Your task to perform on an android device: turn off sleep mode Image 0: 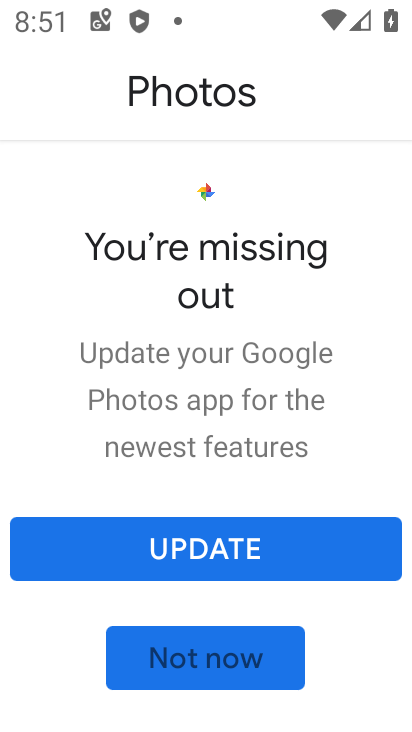
Step 0: press home button
Your task to perform on an android device: turn off sleep mode Image 1: 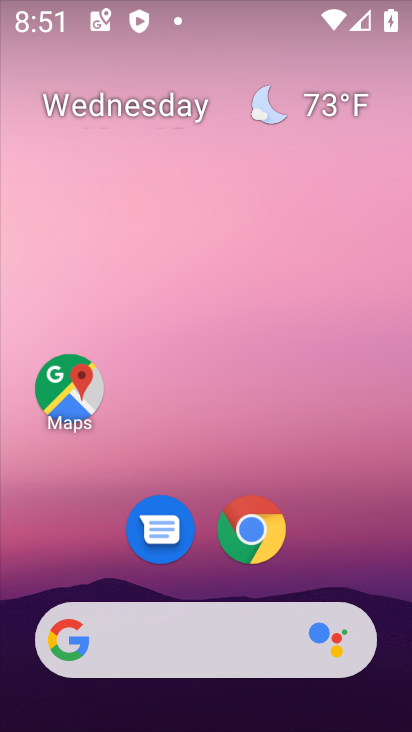
Step 1: drag from (379, 560) to (376, 274)
Your task to perform on an android device: turn off sleep mode Image 2: 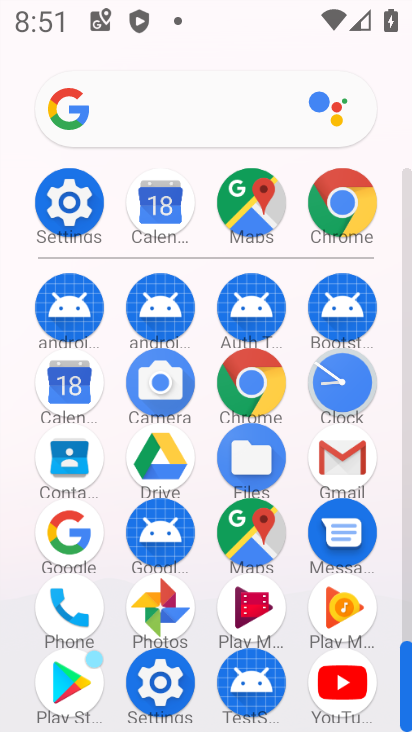
Step 2: click (92, 190)
Your task to perform on an android device: turn off sleep mode Image 3: 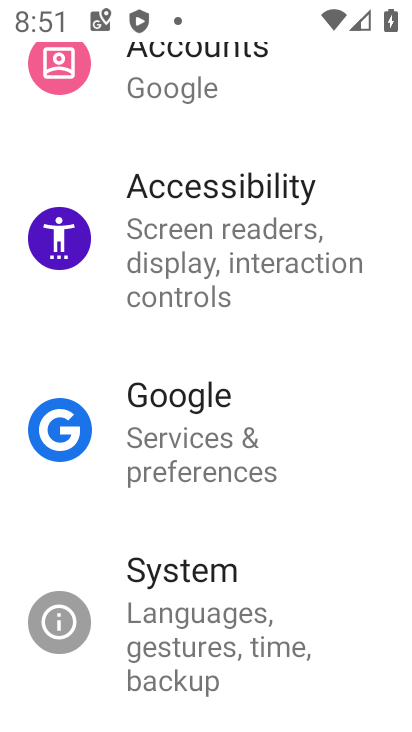
Step 3: drag from (382, 322) to (350, 480)
Your task to perform on an android device: turn off sleep mode Image 4: 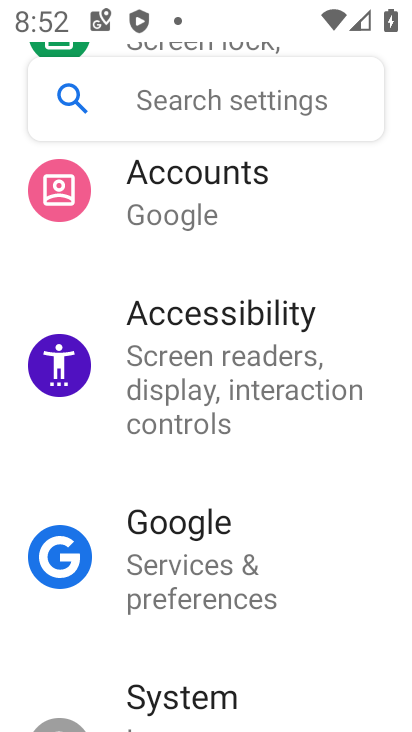
Step 4: drag from (359, 262) to (339, 444)
Your task to perform on an android device: turn off sleep mode Image 5: 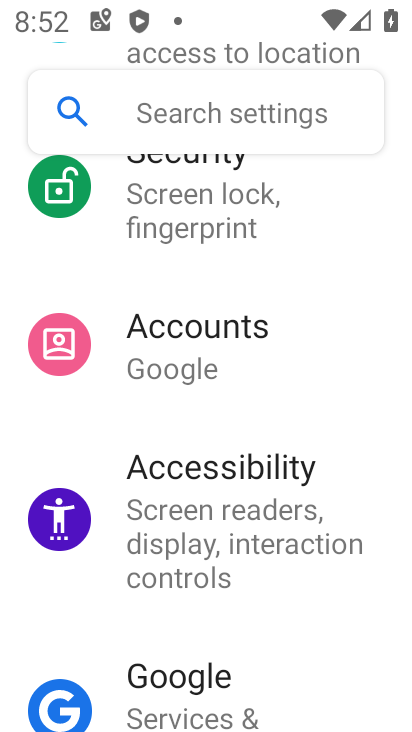
Step 5: drag from (350, 255) to (326, 443)
Your task to perform on an android device: turn off sleep mode Image 6: 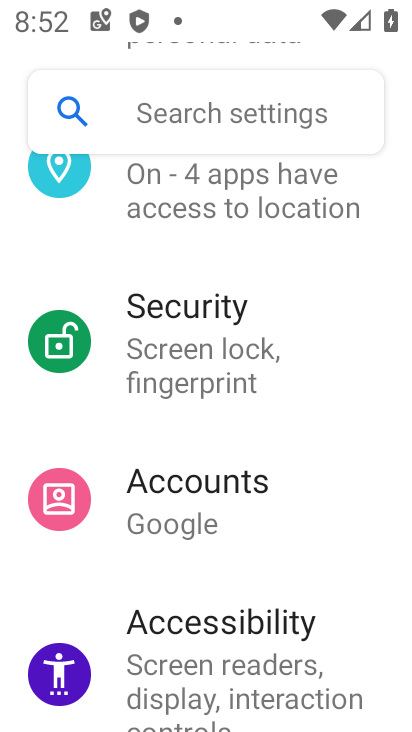
Step 6: drag from (342, 312) to (329, 456)
Your task to perform on an android device: turn off sleep mode Image 7: 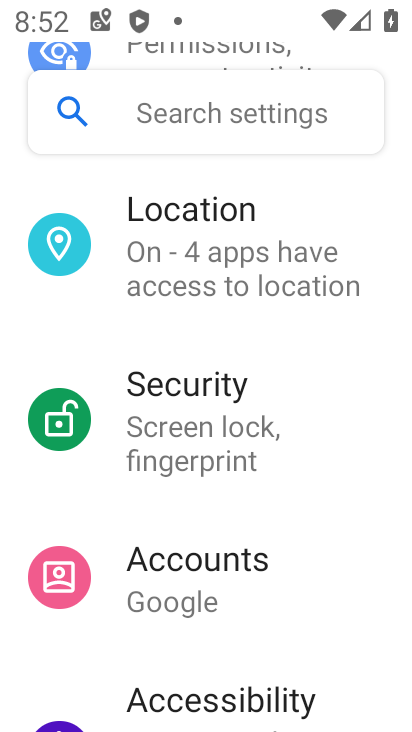
Step 7: drag from (369, 329) to (372, 505)
Your task to perform on an android device: turn off sleep mode Image 8: 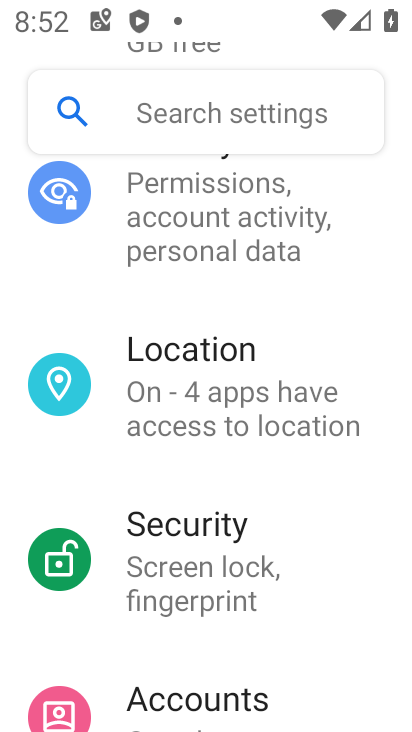
Step 8: drag from (345, 292) to (347, 476)
Your task to perform on an android device: turn off sleep mode Image 9: 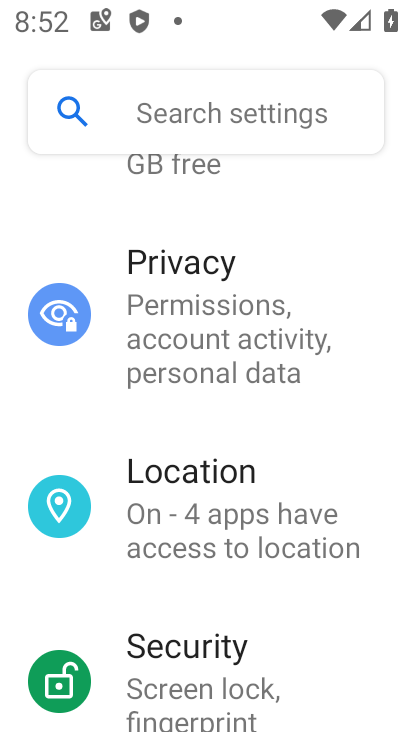
Step 9: drag from (347, 274) to (342, 417)
Your task to perform on an android device: turn off sleep mode Image 10: 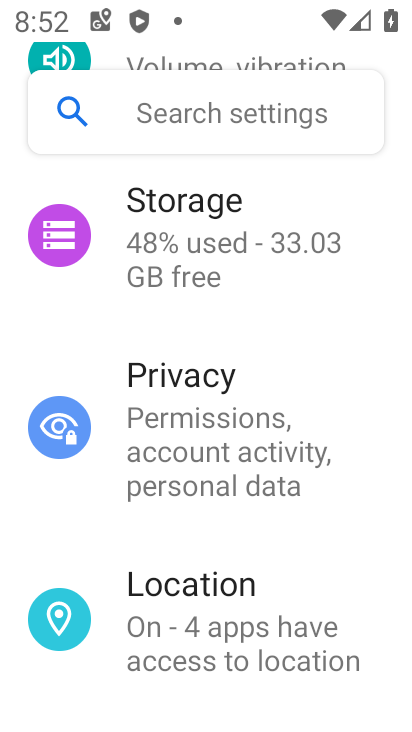
Step 10: drag from (348, 329) to (345, 405)
Your task to perform on an android device: turn off sleep mode Image 11: 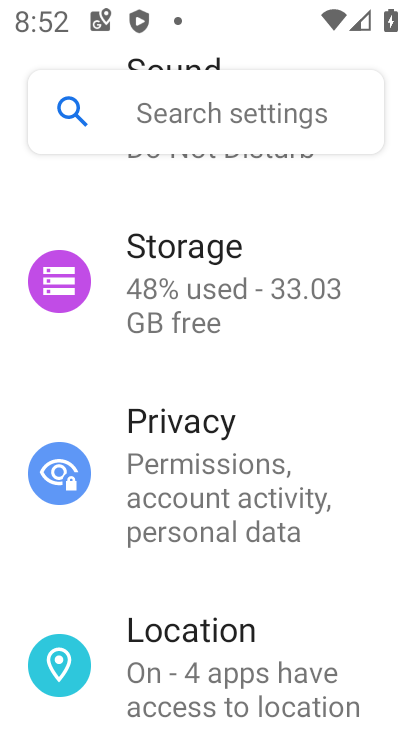
Step 11: drag from (354, 229) to (364, 378)
Your task to perform on an android device: turn off sleep mode Image 12: 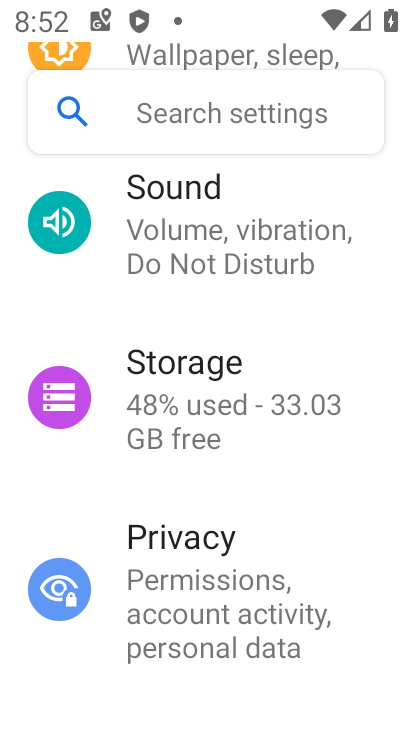
Step 12: drag from (364, 234) to (355, 377)
Your task to perform on an android device: turn off sleep mode Image 13: 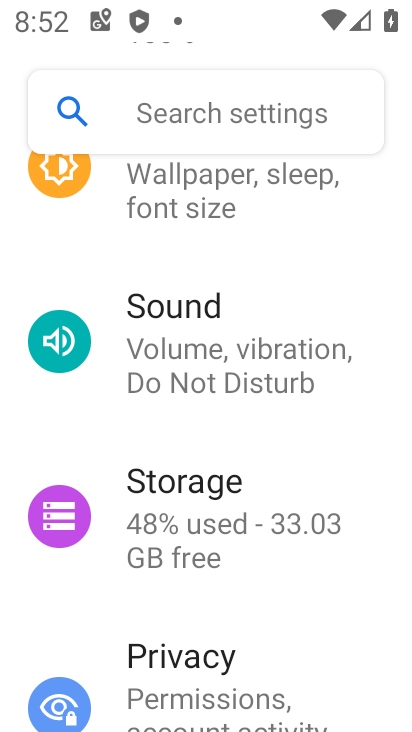
Step 13: drag from (350, 261) to (349, 369)
Your task to perform on an android device: turn off sleep mode Image 14: 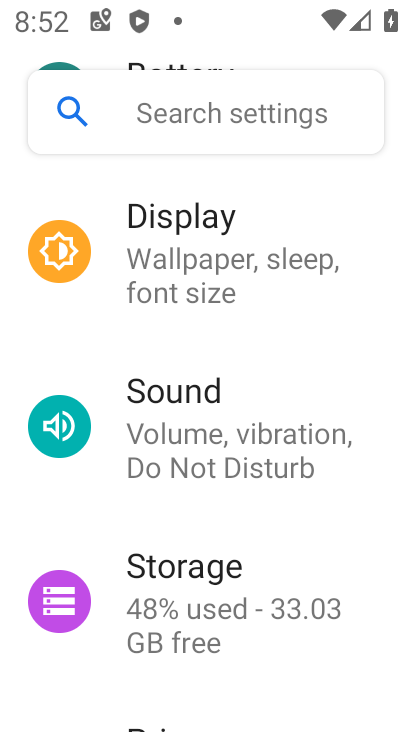
Step 14: click (301, 258)
Your task to perform on an android device: turn off sleep mode Image 15: 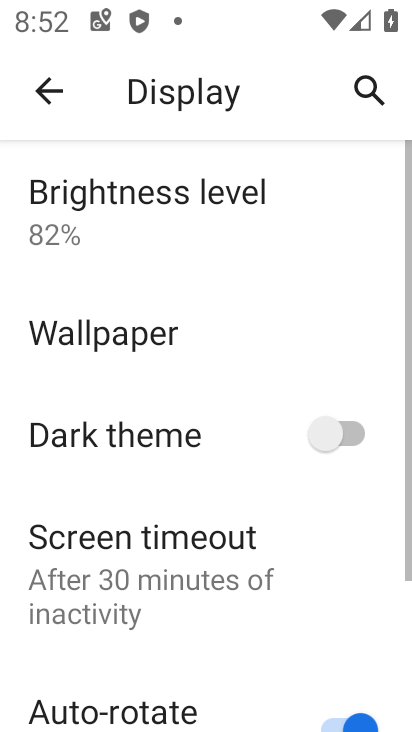
Step 15: drag from (281, 525) to (295, 314)
Your task to perform on an android device: turn off sleep mode Image 16: 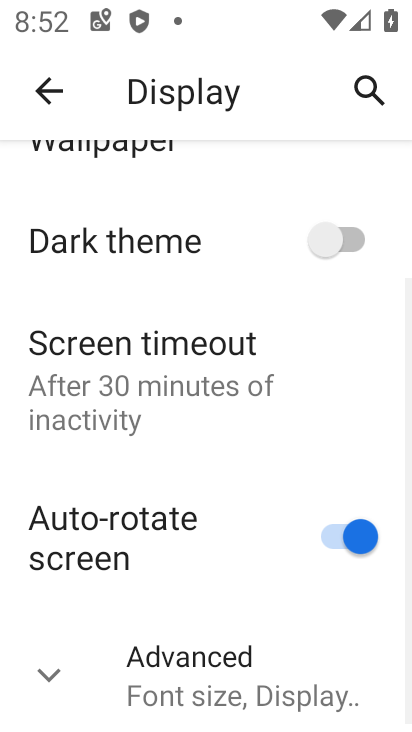
Step 16: drag from (290, 573) to (293, 445)
Your task to perform on an android device: turn off sleep mode Image 17: 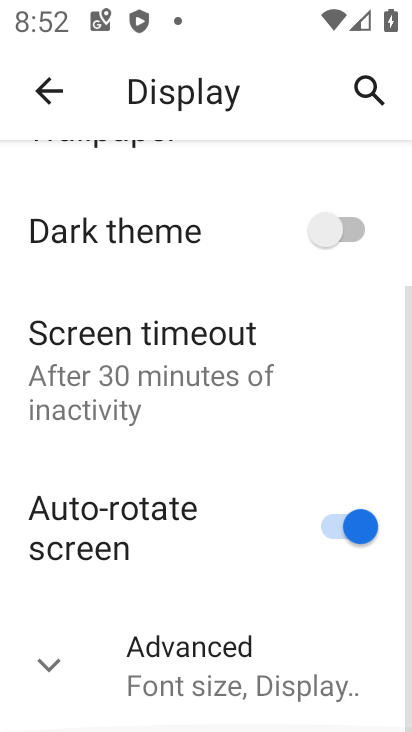
Step 17: click (234, 655)
Your task to perform on an android device: turn off sleep mode Image 18: 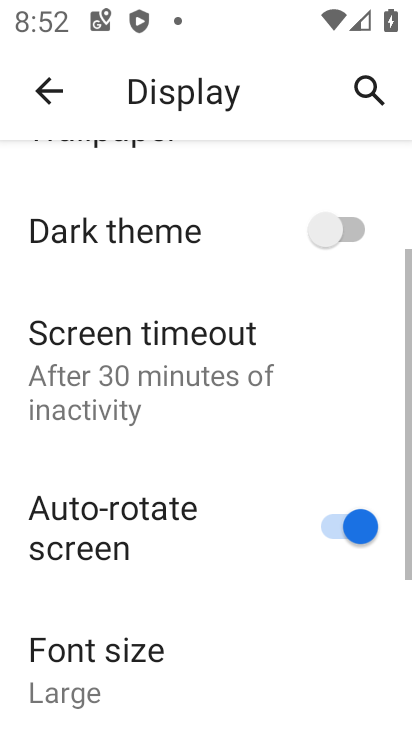
Step 18: task complete